Your task to perform on an android device: See recent photos Image 0: 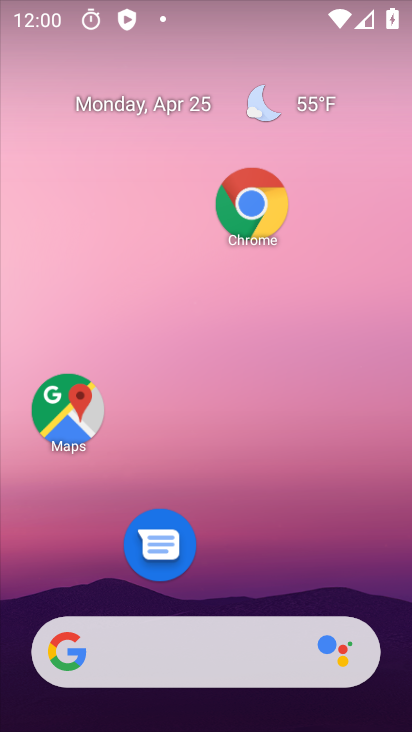
Step 0: drag from (338, 681) to (377, 199)
Your task to perform on an android device: See recent photos Image 1: 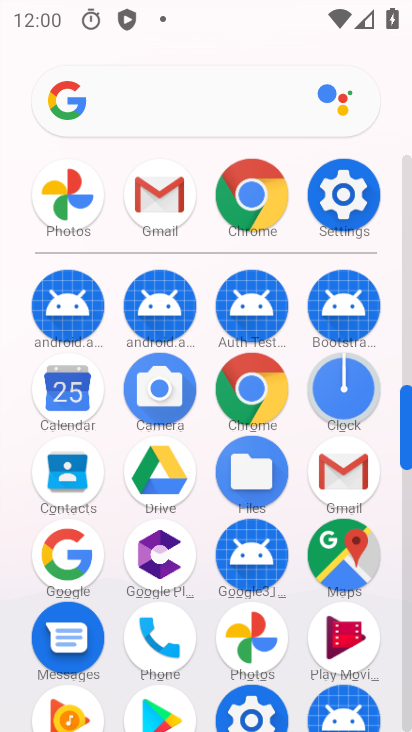
Step 1: click (243, 625)
Your task to perform on an android device: See recent photos Image 2: 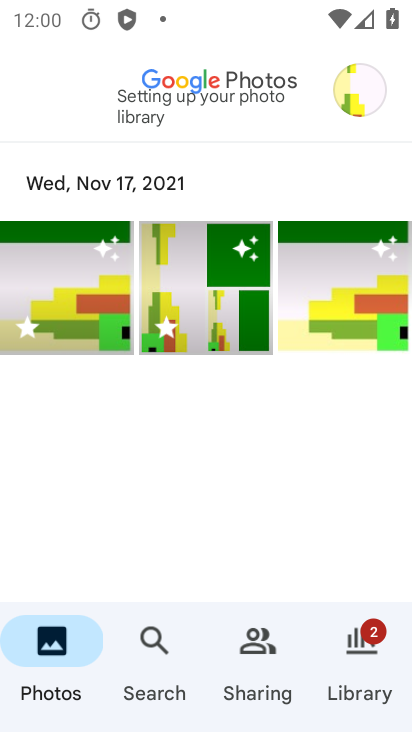
Step 2: task complete